Your task to perform on an android device: Open notification settings Image 0: 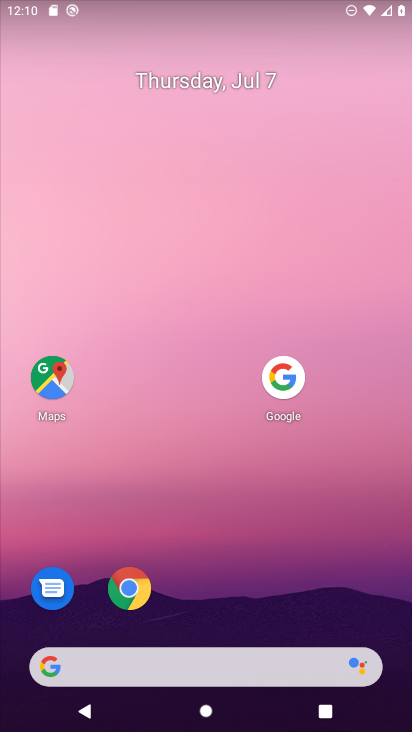
Step 0: drag from (237, 645) to (268, 96)
Your task to perform on an android device: Open notification settings Image 1: 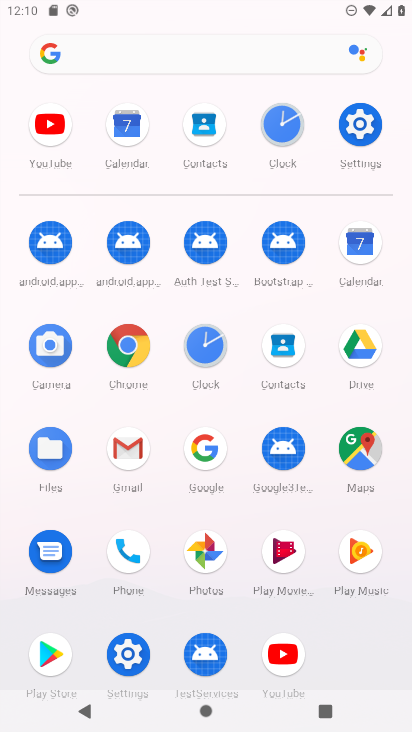
Step 1: click (361, 127)
Your task to perform on an android device: Open notification settings Image 2: 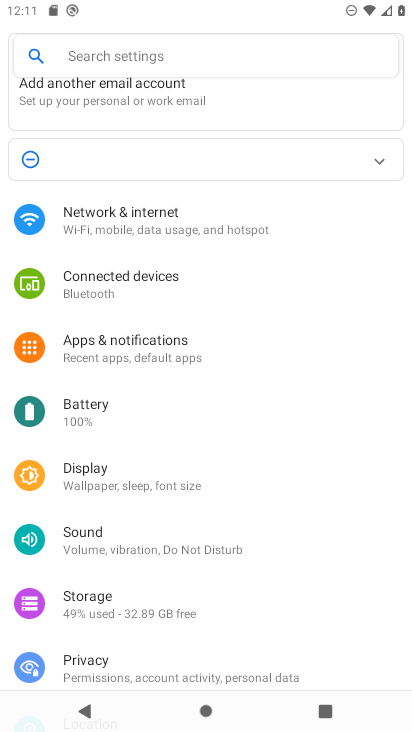
Step 2: click (149, 348)
Your task to perform on an android device: Open notification settings Image 3: 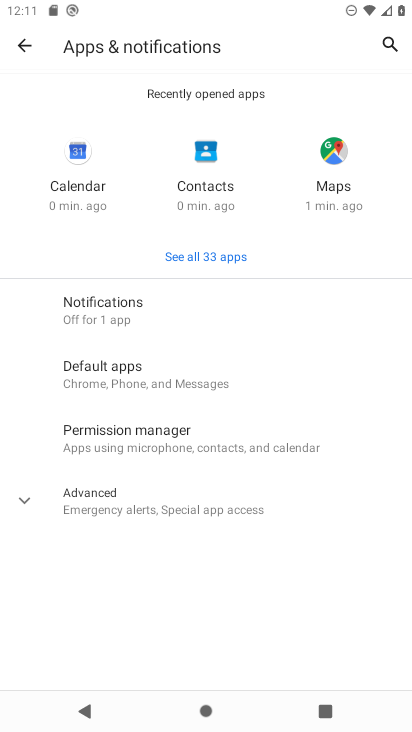
Step 3: click (91, 311)
Your task to perform on an android device: Open notification settings Image 4: 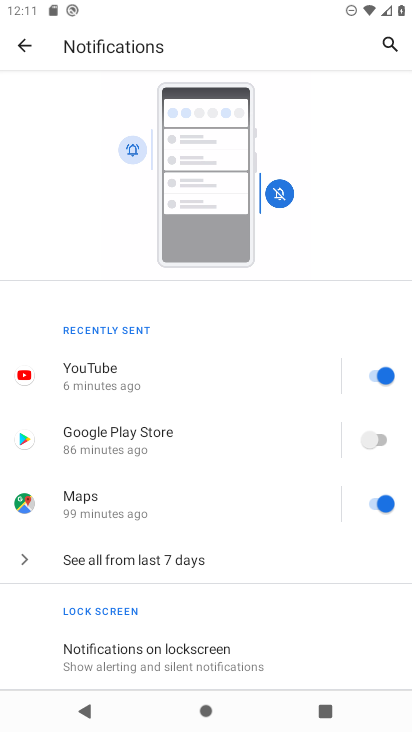
Step 4: task complete